Your task to perform on an android device: Go to Yahoo.com Image 0: 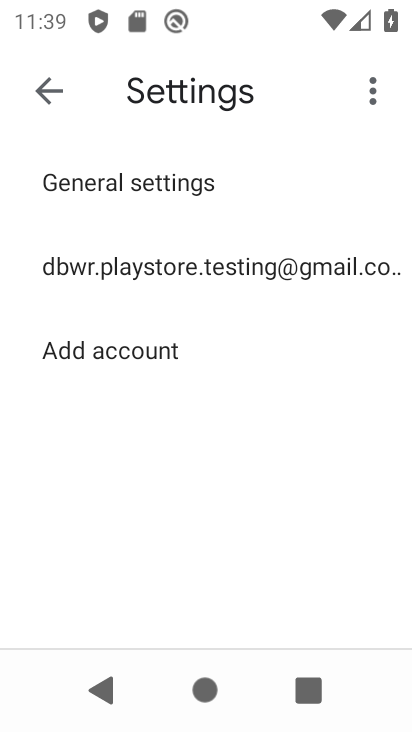
Step 0: press home button
Your task to perform on an android device: Go to Yahoo.com Image 1: 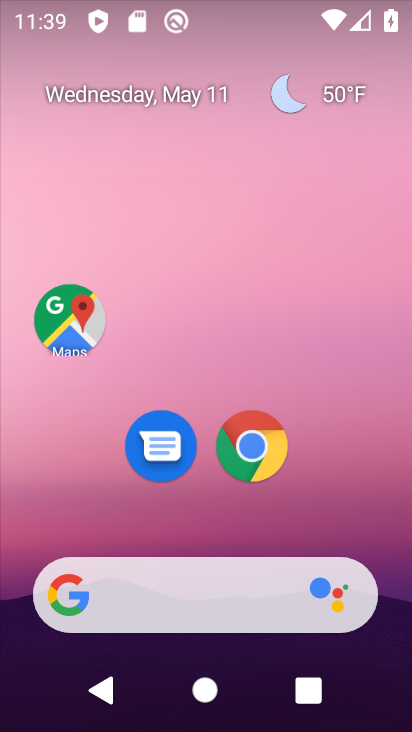
Step 1: click (267, 462)
Your task to perform on an android device: Go to Yahoo.com Image 2: 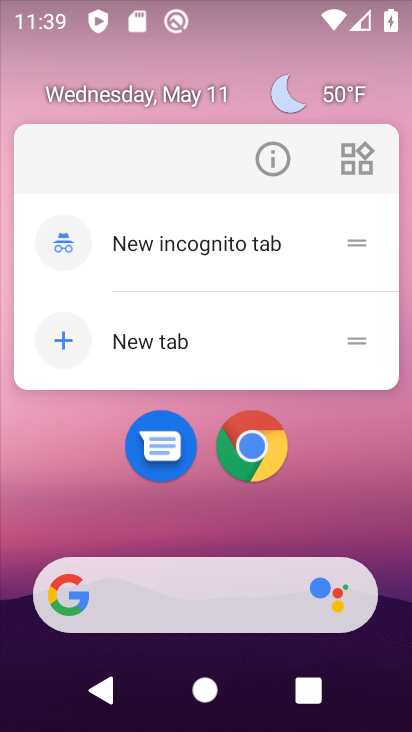
Step 2: click (267, 462)
Your task to perform on an android device: Go to Yahoo.com Image 3: 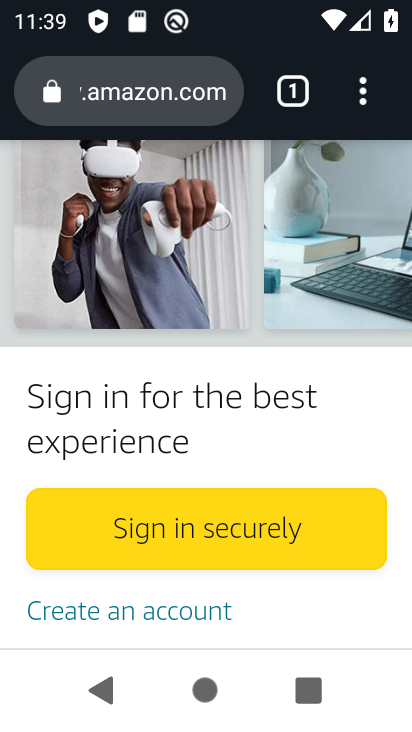
Step 3: click (139, 86)
Your task to perform on an android device: Go to Yahoo.com Image 4: 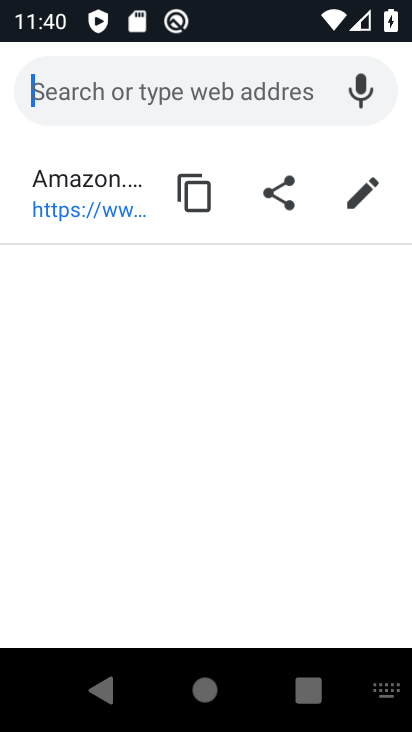
Step 4: type "yahoo.com"
Your task to perform on an android device: Go to Yahoo.com Image 5: 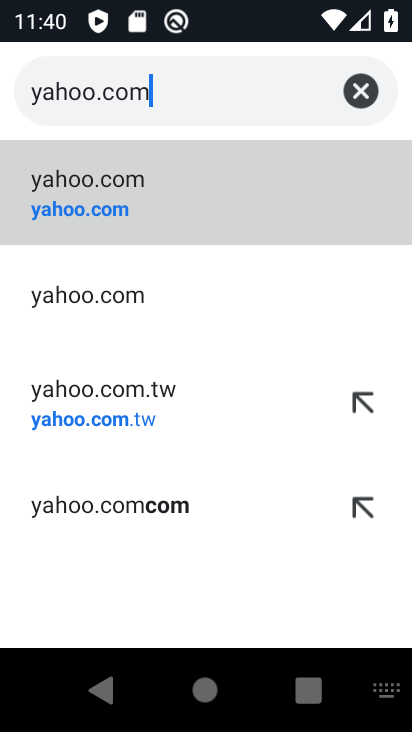
Step 5: click (184, 153)
Your task to perform on an android device: Go to Yahoo.com Image 6: 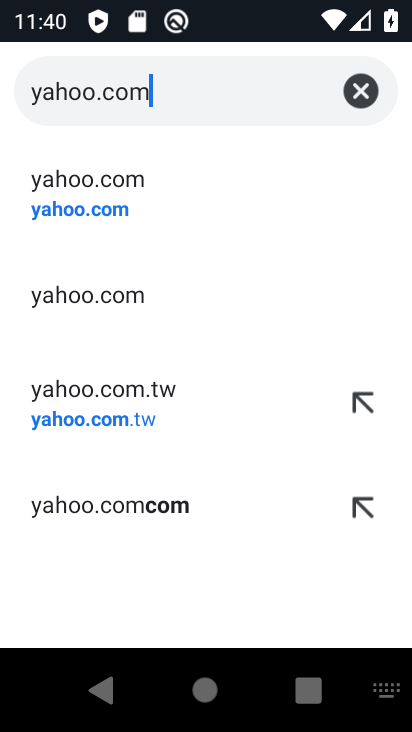
Step 6: click (187, 182)
Your task to perform on an android device: Go to Yahoo.com Image 7: 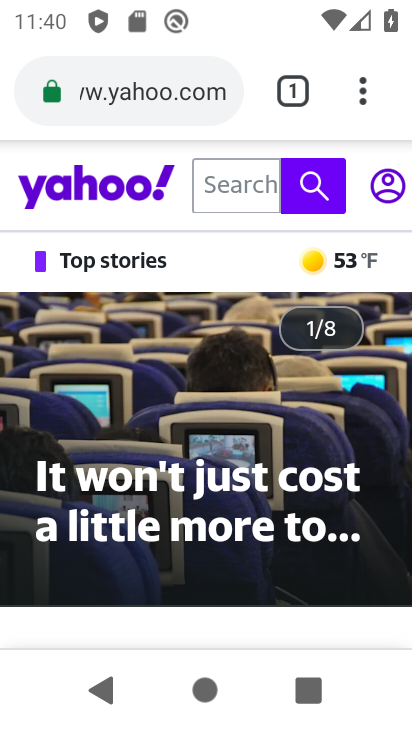
Step 7: task complete